Your task to perform on an android device: Open battery settings Image 0: 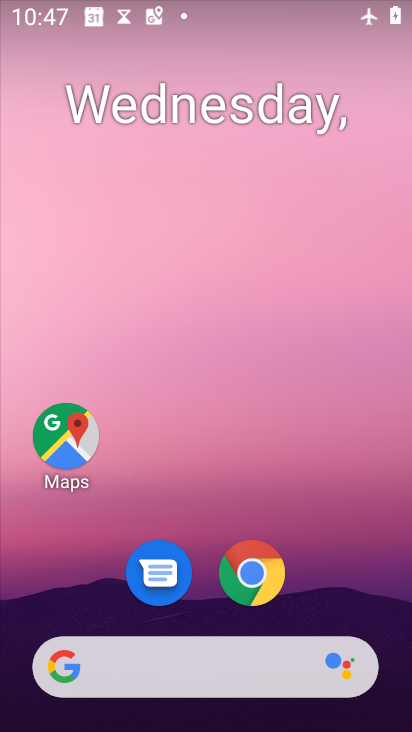
Step 0: drag from (314, 508) to (331, 177)
Your task to perform on an android device: Open battery settings Image 1: 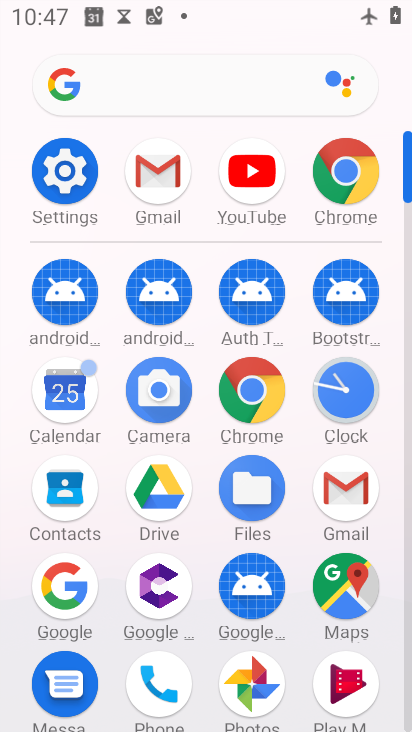
Step 1: click (58, 164)
Your task to perform on an android device: Open battery settings Image 2: 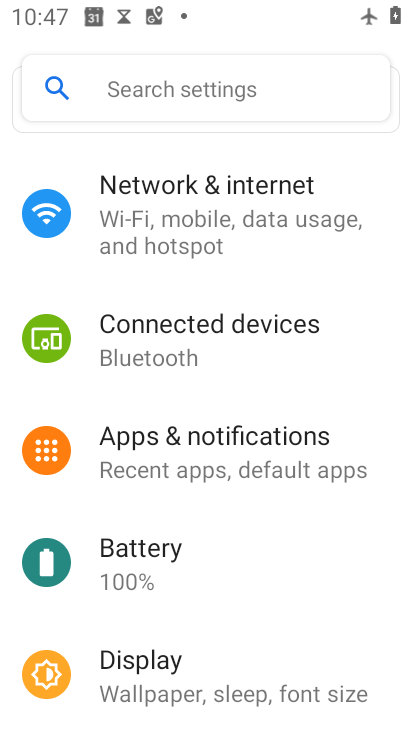
Step 2: drag from (228, 556) to (227, 255)
Your task to perform on an android device: Open battery settings Image 3: 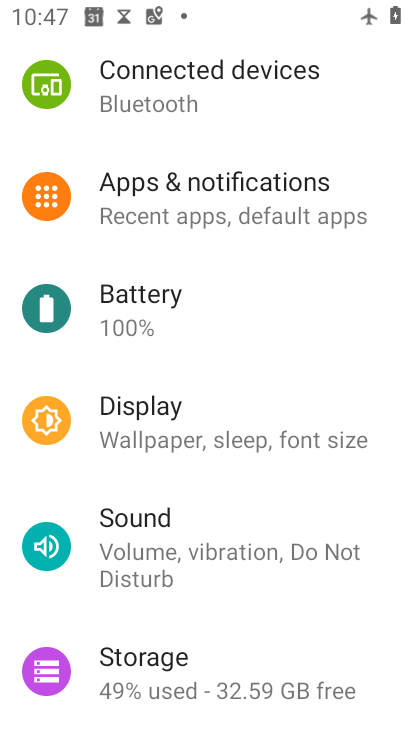
Step 3: click (137, 298)
Your task to perform on an android device: Open battery settings Image 4: 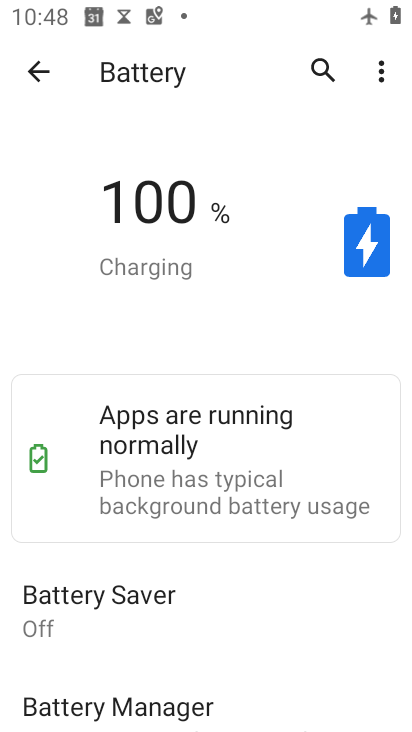
Step 4: task complete